Your task to perform on an android device: What's the price of the new iPhone Image 0: 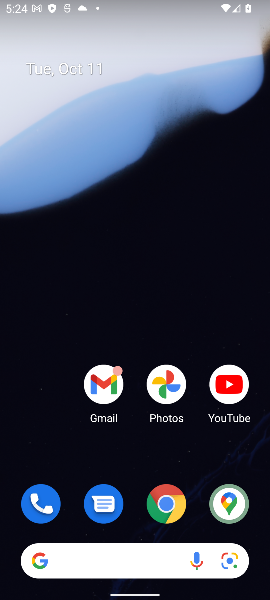
Step 0: click (80, 565)
Your task to perform on an android device: What's the price of the new iPhone Image 1: 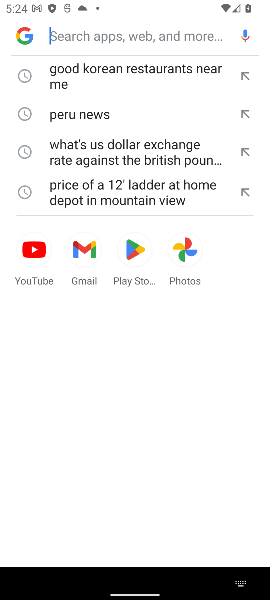
Step 1: click (92, 40)
Your task to perform on an android device: What's the price of the new iPhone Image 2: 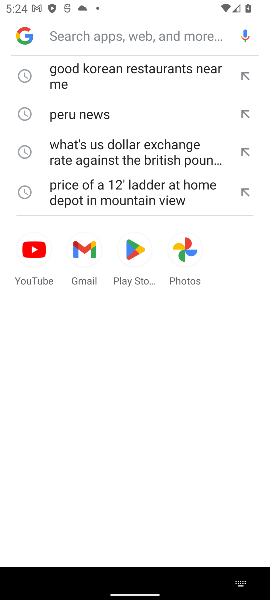
Step 2: type "What's the price of the new iPhone"
Your task to perform on an android device: What's the price of the new iPhone Image 3: 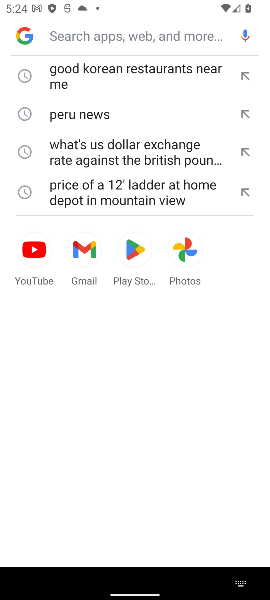
Step 3: click (135, 489)
Your task to perform on an android device: What's the price of the new iPhone Image 4: 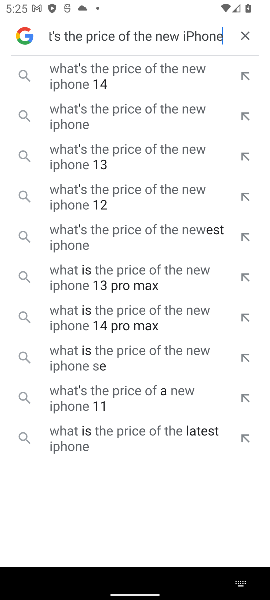
Step 4: click (151, 78)
Your task to perform on an android device: What's the price of the new iPhone Image 5: 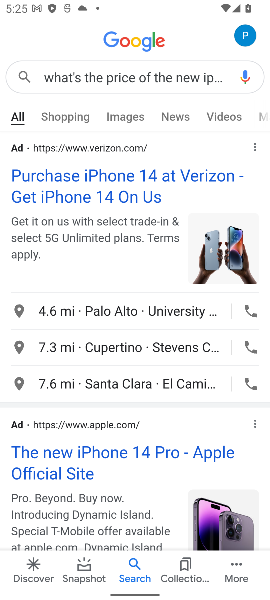
Step 5: task complete